Your task to perform on an android device: turn on javascript in the chrome app Image 0: 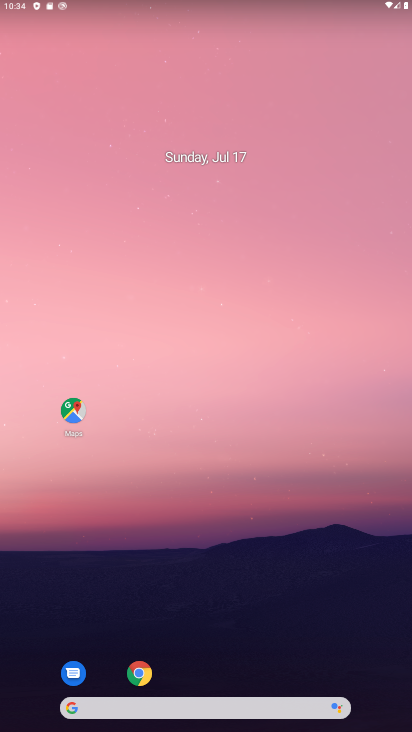
Step 0: drag from (224, 618) to (298, 116)
Your task to perform on an android device: turn on javascript in the chrome app Image 1: 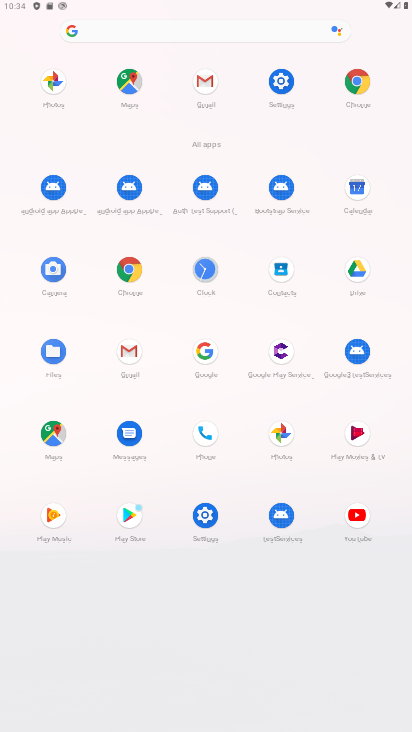
Step 1: click (135, 275)
Your task to perform on an android device: turn on javascript in the chrome app Image 2: 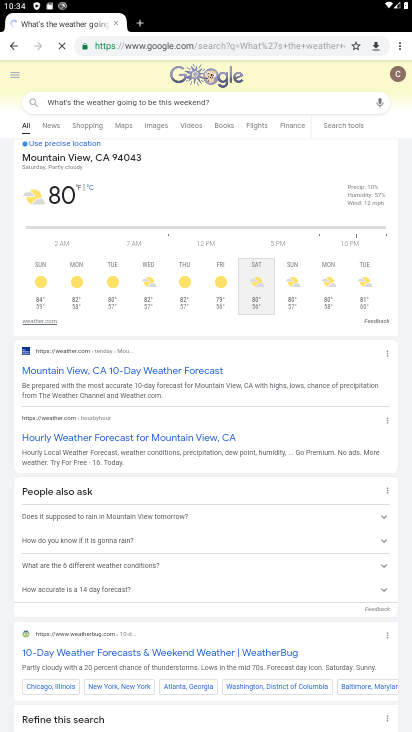
Step 2: drag from (404, 50) to (331, 313)
Your task to perform on an android device: turn on javascript in the chrome app Image 3: 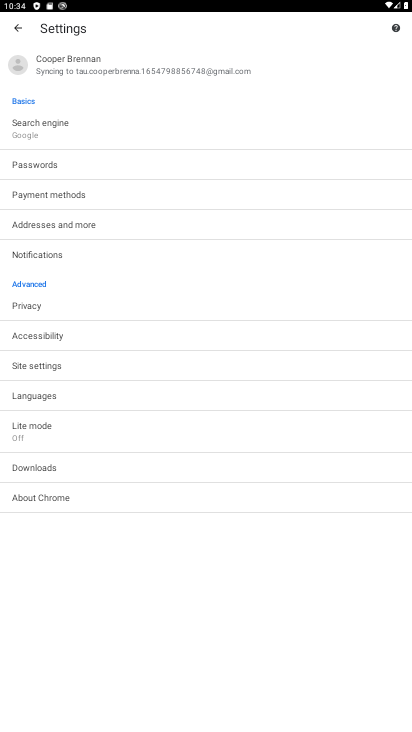
Step 3: click (64, 371)
Your task to perform on an android device: turn on javascript in the chrome app Image 4: 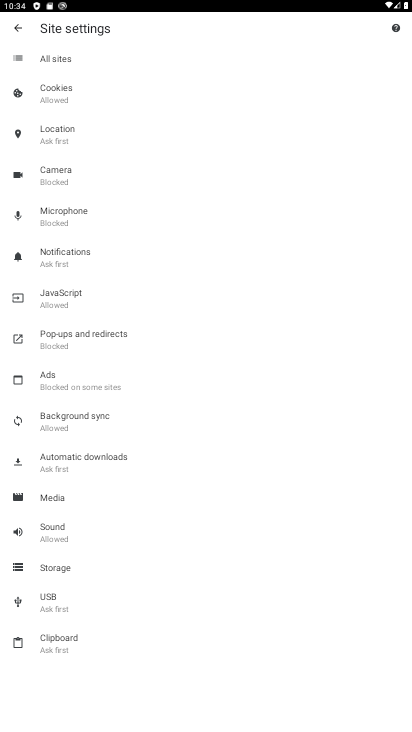
Step 4: click (76, 312)
Your task to perform on an android device: turn on javascript in the chrome app Image 5: 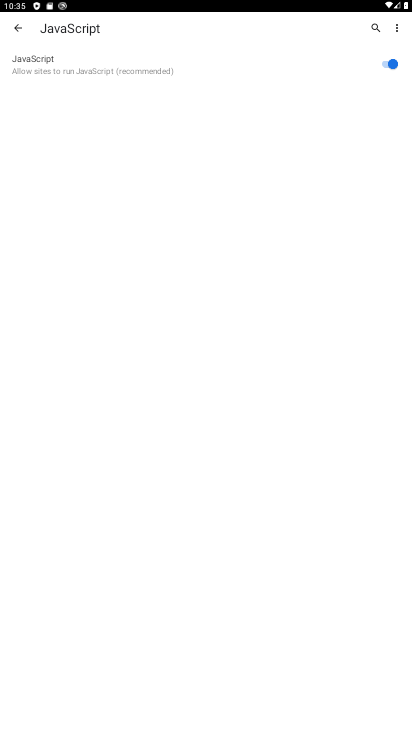
Step 5: task complete